Your task to perform on an android device: change your default location settings in chrome Image 0: 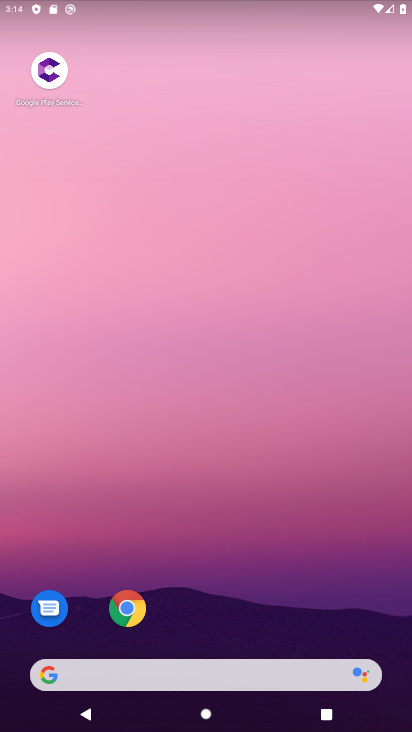
Step 0: drag from (46, 518) to (367, 33)
Your task to perform on an android device: change your default location settings in chrome Image 1: 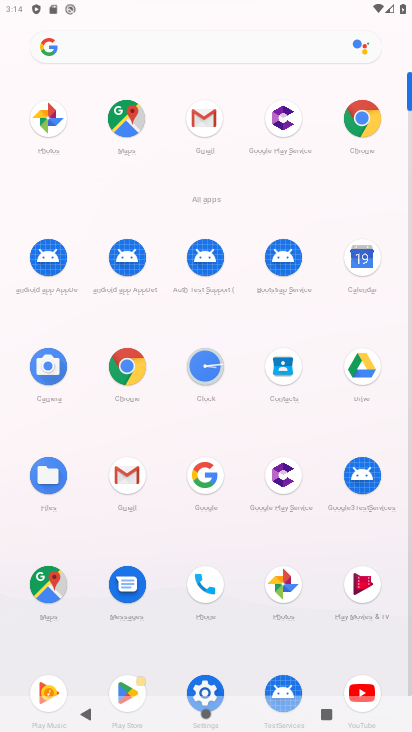
Step 1: click (352, 124)
Your task to perform on an android device: change your default location settings in chrome Image 2: 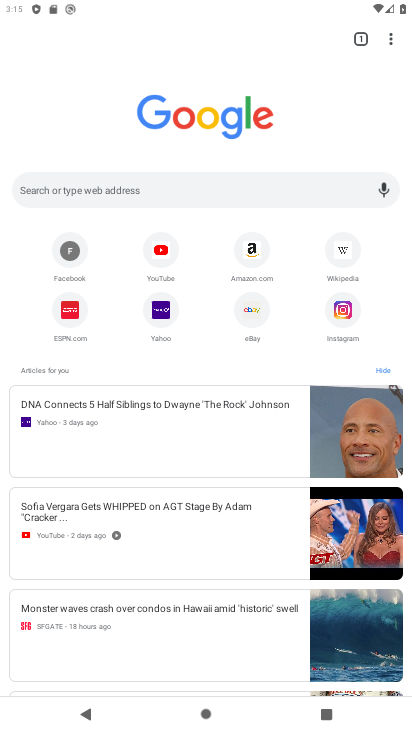
Step 2: click (391, 43)
Your task to perform on an android device: change your default location settings in chrome Image 3: 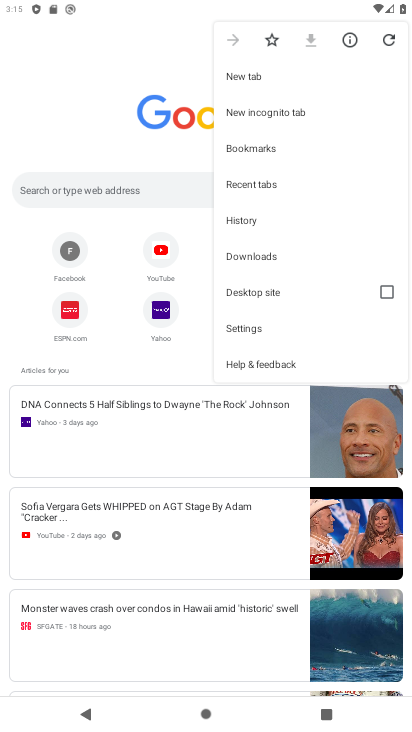
Step 3: click (227, 331)
Your task to perform on an android device: change your default location settings in chrome Image 4: 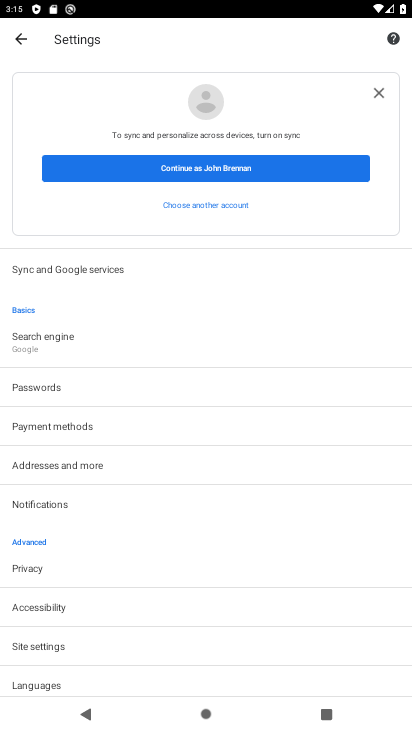
Step 4: click (40, 650)
Your task to perform on an android device: change your default location settings in chrome Image 5: 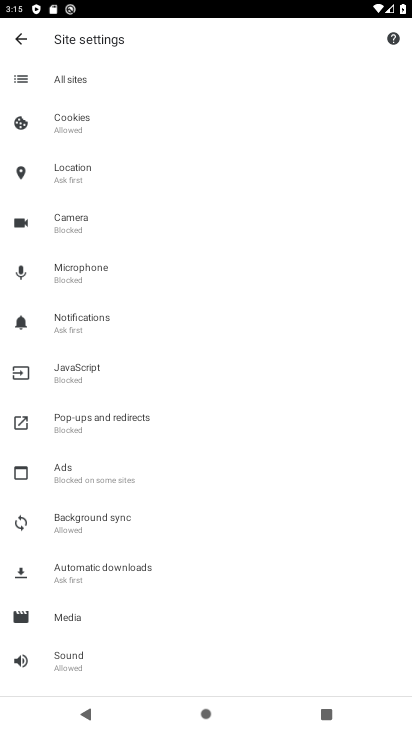
Step 5: click (94, 173)
Your task to perform on an android device: change your default location settings in chrome Image 6: 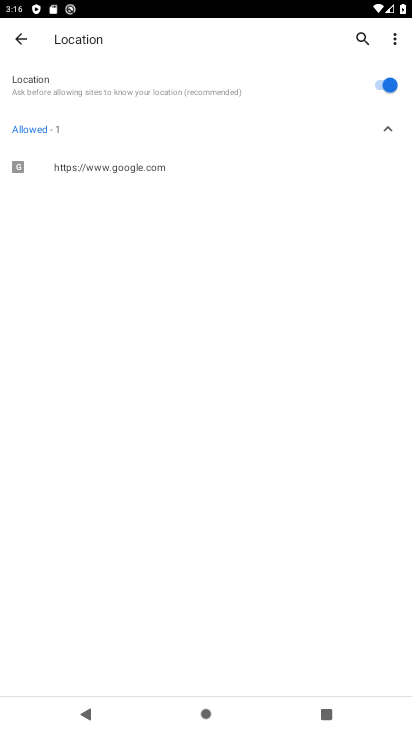
Step 6: click (387, 91)
Your task to perform on an android device: change your default location settings in chrome Image 7: 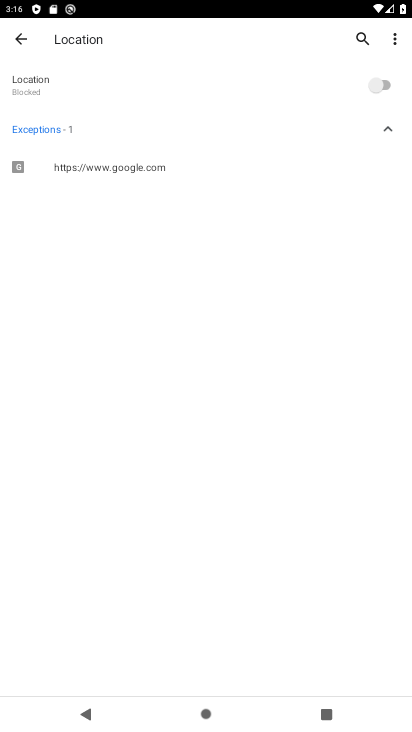
Step 7: task complete